Your task to perform on an android device: Add dell xps to the cart on costco, then select checkout. Image 0: 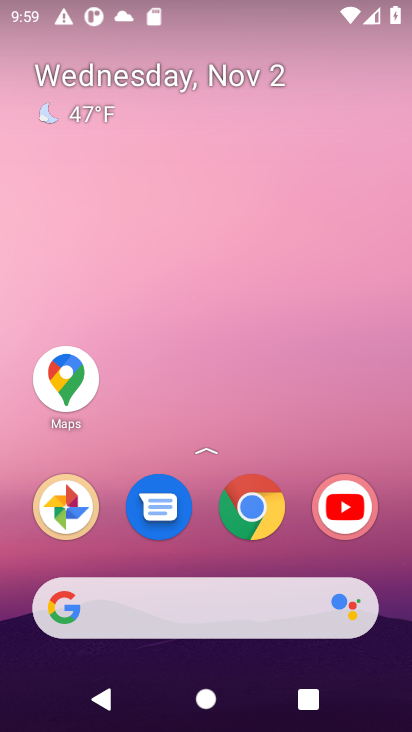
Step 0: click (191, 595)
Your task to perform on an android device: Add dell xps to the cart on costco, then select checkout. Image 1: 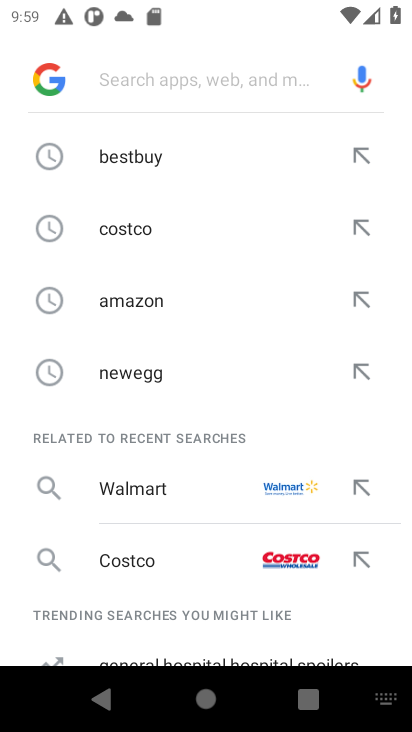
Step 1: click (185, 554)
Your task to perform on an android device: Add dell xps to the cart on costco, then select checkout. Image 2: 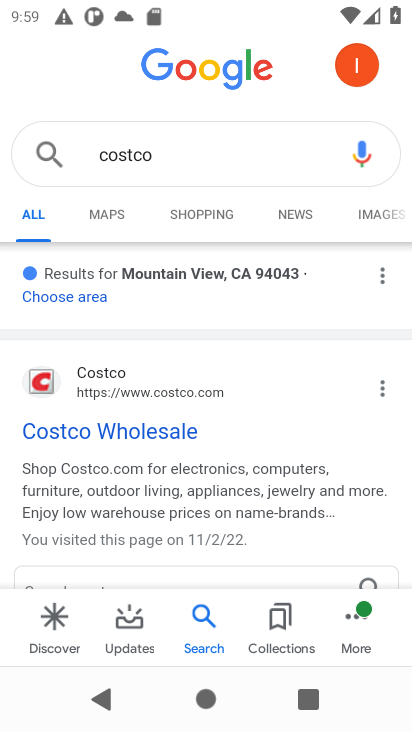
Step 2: click (124, 440)
Your task to perform on an android device: Add dell xps to the cart on costco, then select checkout. Image 3: 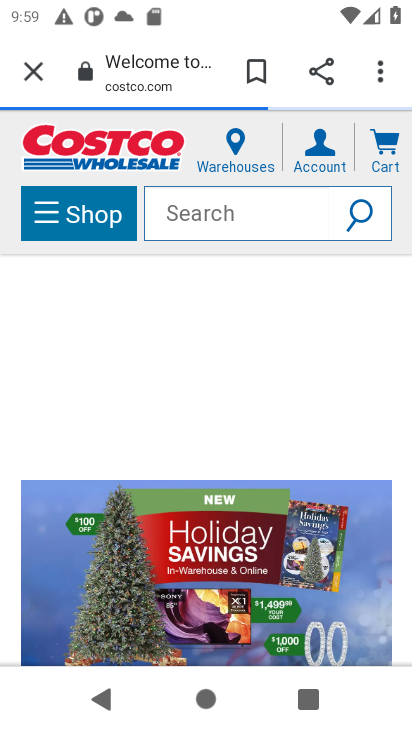
Step 3: click (219, 220)
Your task to perform on an android device: Add dell xps to the cart on costco, then select checkout. Image 4: 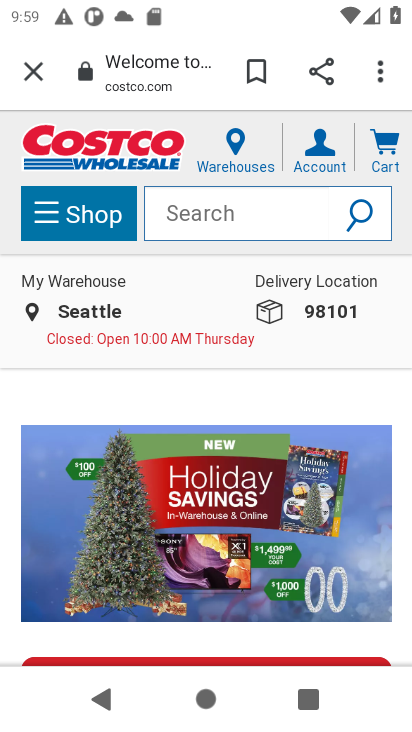
Step 4: click (207, 221)
Your task to perform on an android device: Add dell xps to the cart on costco, then select checkout. Image 5: 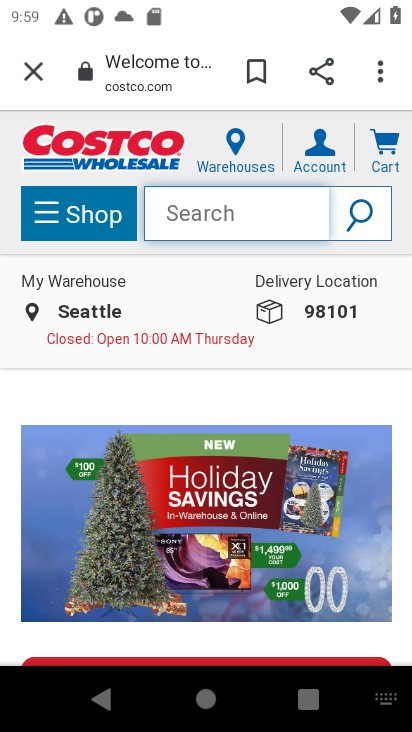
Step 5: type "dell xps"
Your task to perform on an android device: Add dell xps to the cart on costco, then select checkout. Image 6: 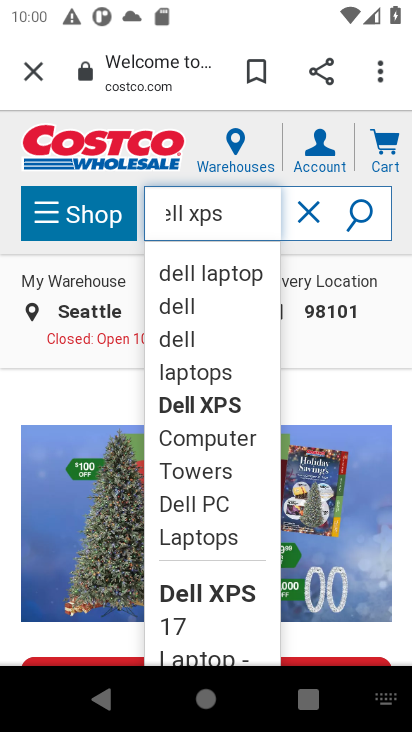
Step 6: click (207, 382)
Your task to perform on an android device: Add dell xps to the cart on costco, then select checkout. Image 7: 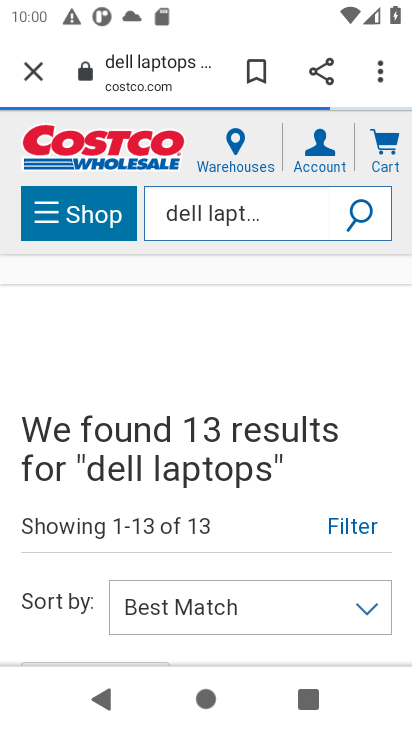
Step 7: drag from (181, 556) to (189, 141)
Your task to perform on an android device: Add dell xps to the cart on costco, then select checkout. Image 8: 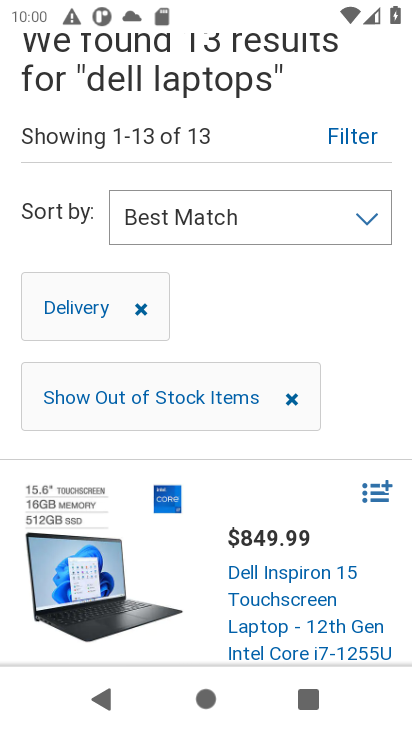
Step 8: click (262, 630)
Your task to perform on an android device: Add dell xps to the cart on costco, then select checkout. Image 9: 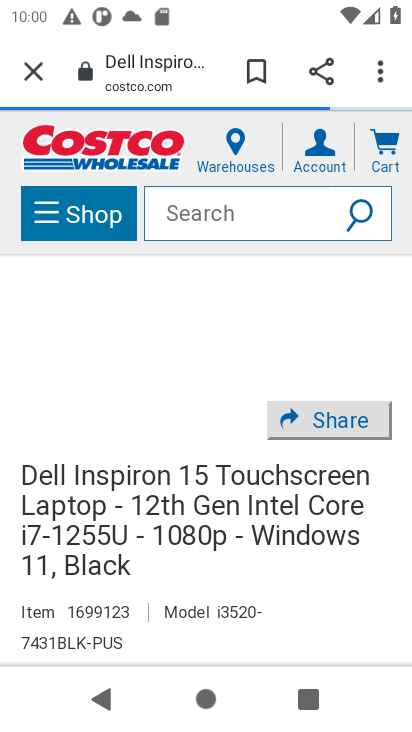
Step 9: drag from (262, 630) to (239, 59)
Your task to perform on an android device: Add dell xps to the cart on costco, then select checkout. Image 10: 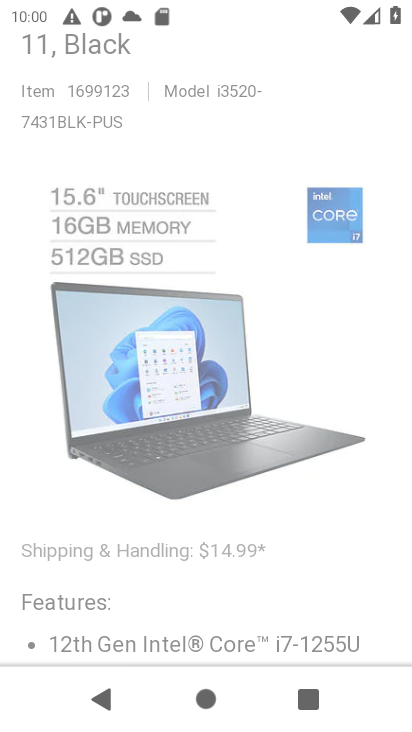
Step 10: drag from (261, 522) to (263, 136)
Your task to perform on an android device: Add dell xps to the cart on costco, then select checkout. Image 11: 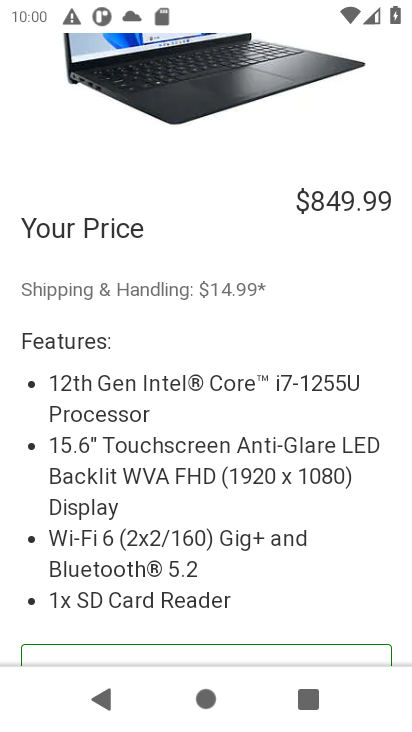
Step 11: drag from (270, 550) to (221, 158)
Your task to perform on an android device: Add dell xps to the cart on costco, then select checkout. Image 12: 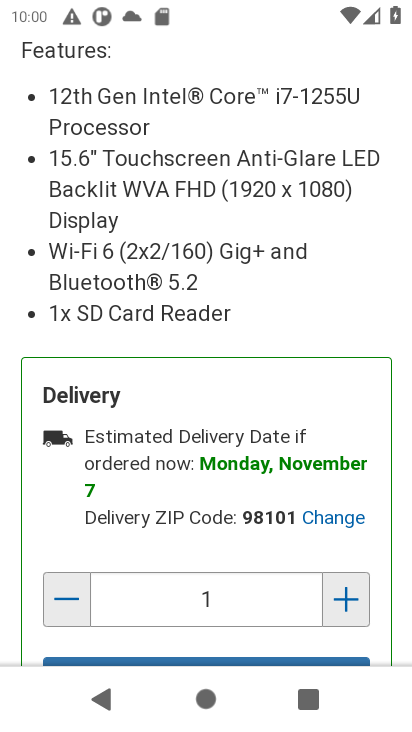
Step 12: click (245, 599)
Your task to perform on an android device: Add dell xps to the cart on costco, then select checkout. Image 13: 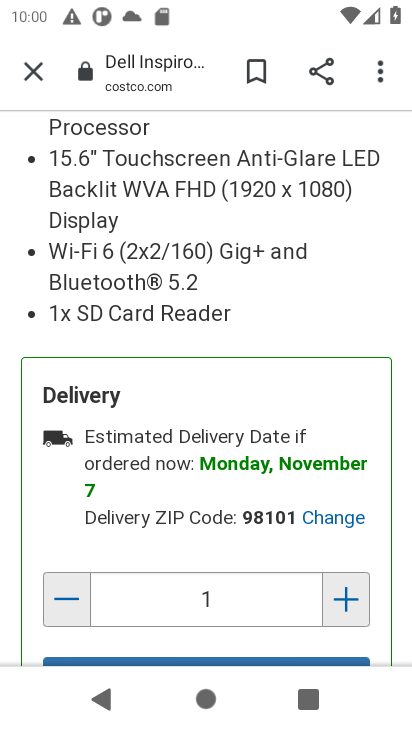
Step 13: task complete